Your task to perform on an android device: Open ESPN.com Image 0: 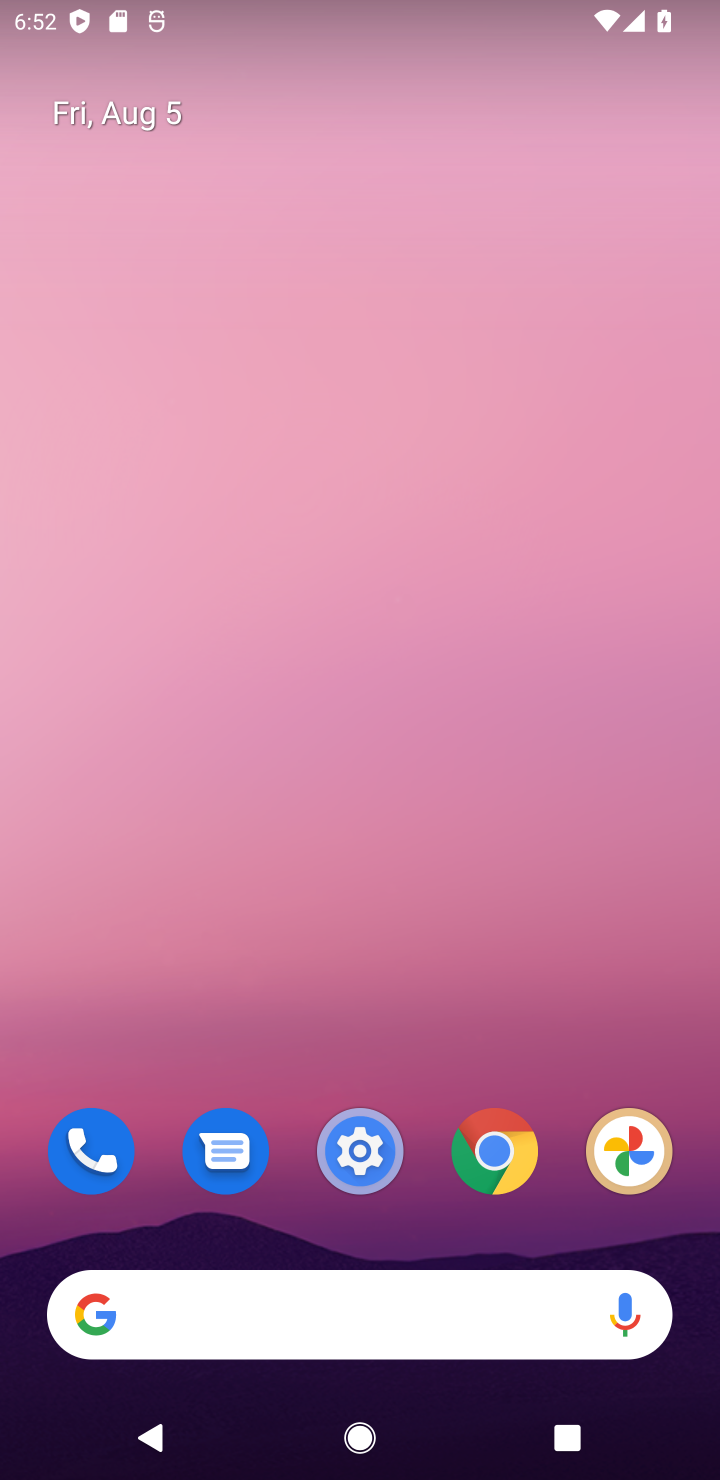
Step 0: click (496, 1156)
Your task to perform on an android device: Open ESPN.com Image 1: 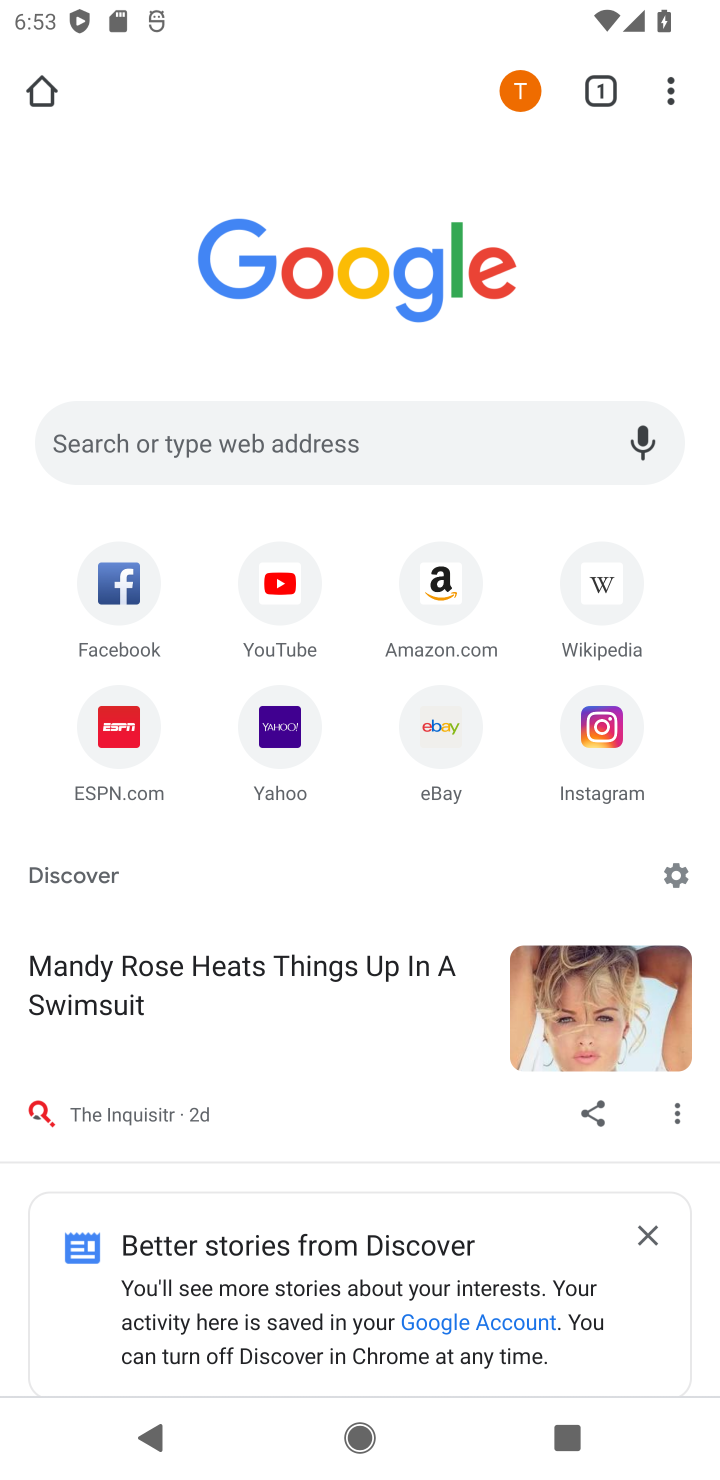
Step 1: click (109, 728)
Your task to perform on an android device: Open ESPN.com Image 2: 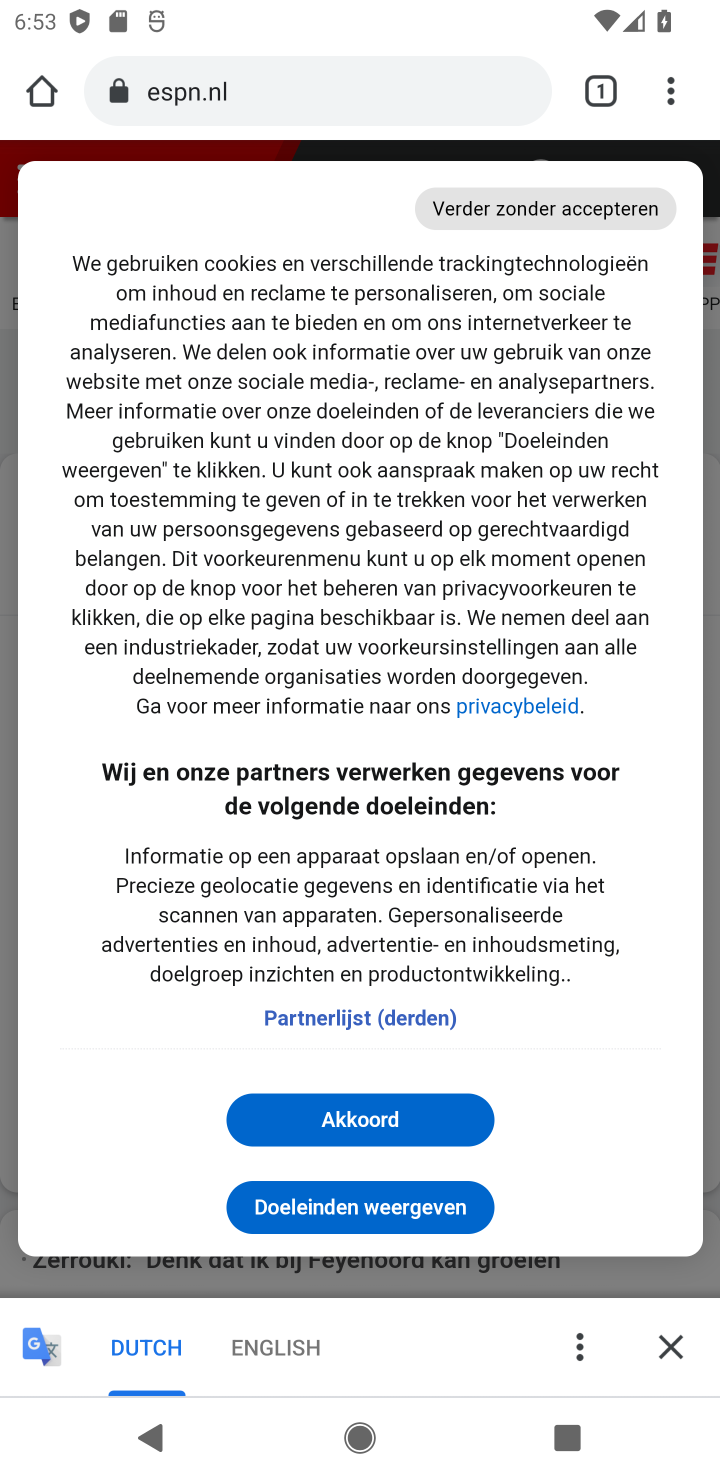
Step 2: click (671, 1337)
Your task to perform on an android device: Open ESPN.com Image 3: 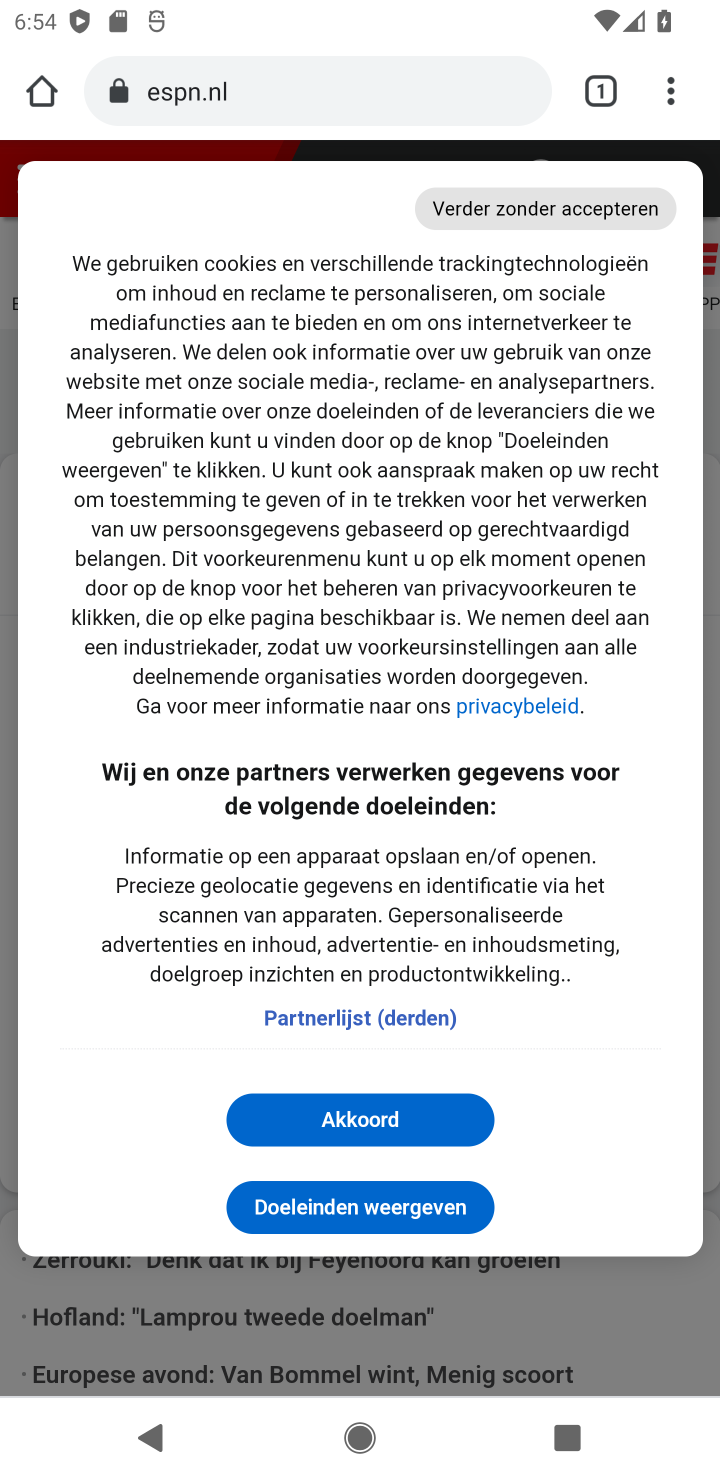
Step 3: click (298, 1129)
Your task to perform on an android device: Open ESPN.com Image 4: 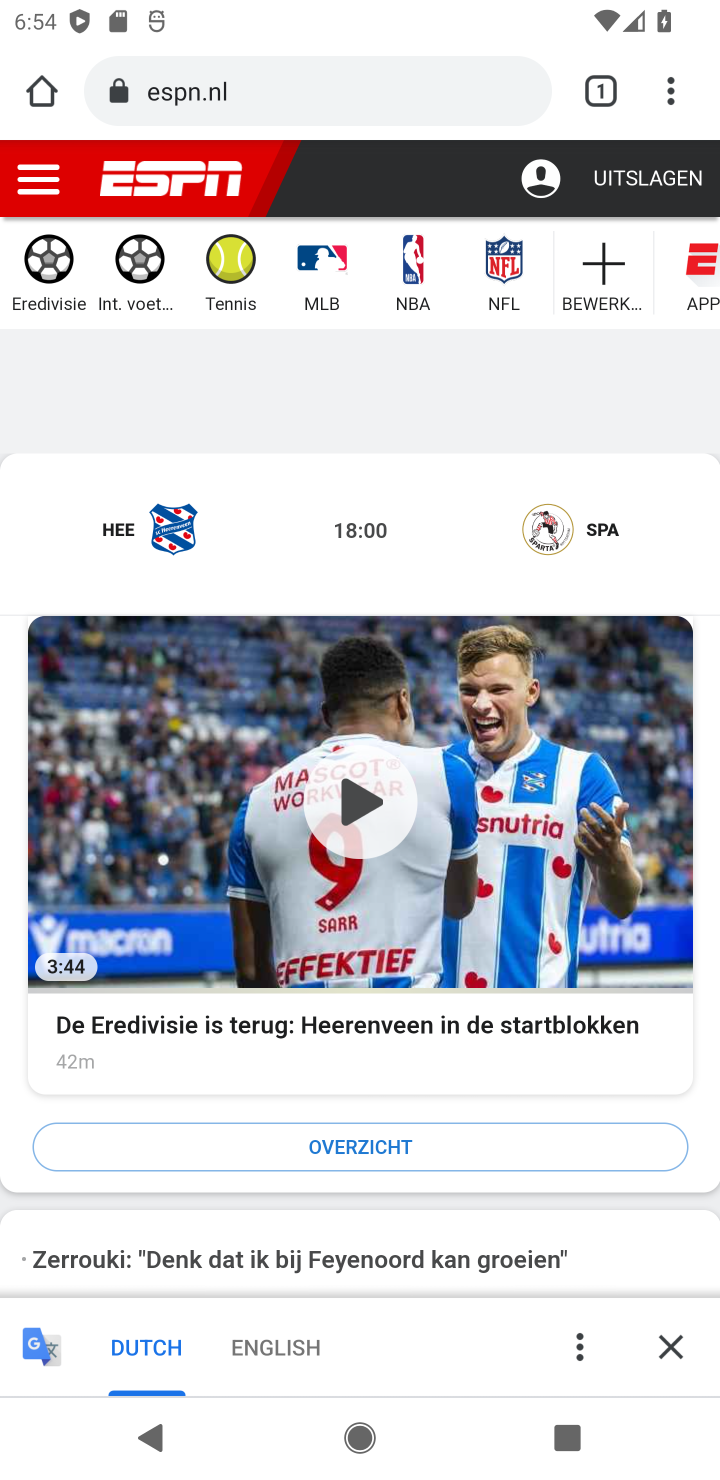
Step 4: task complete